Your task to perform on an android device: What's the weather today? Image 0: 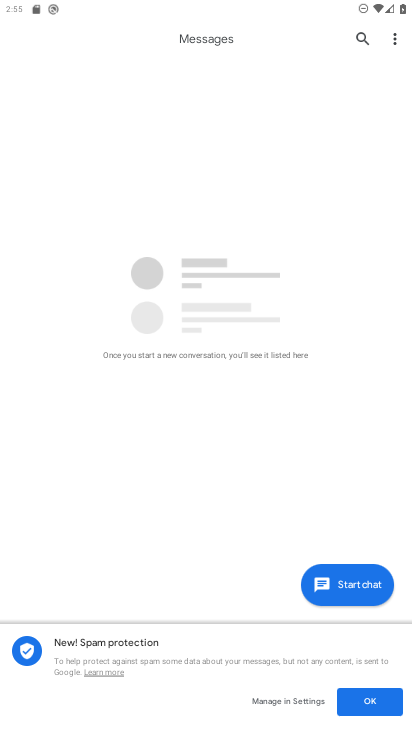
Step 0: press home button
Your task to perform on an android device: What's the weather today? Image 1: 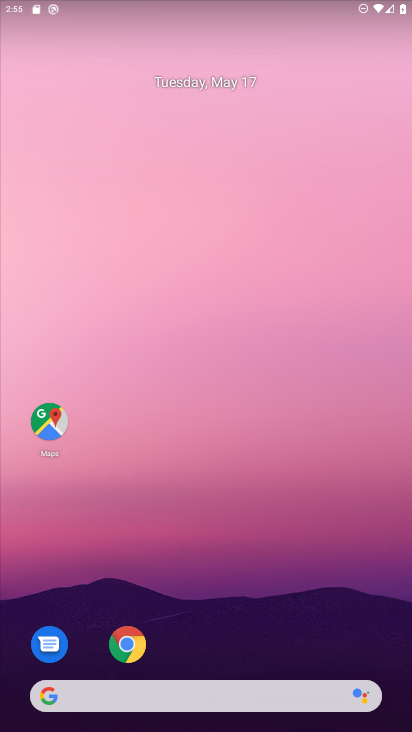
Step 1: drag from (230, 613) to (206, 189)
Your task to perform on an android device: What's the weather today? Image 2: 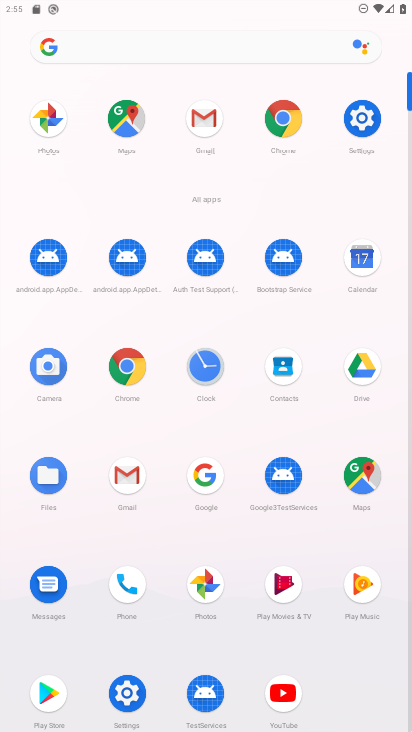
Step 2: click (287, 135)
Your task to perform on an android device: What's the weather today? Image 3: 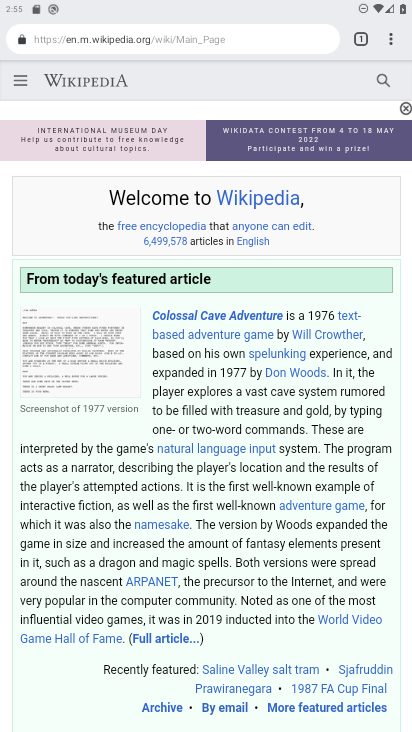
Step 3: drag from (199, 711) to (347, 724)
Your task to perform on an android device: What's the weather today? Image 4: 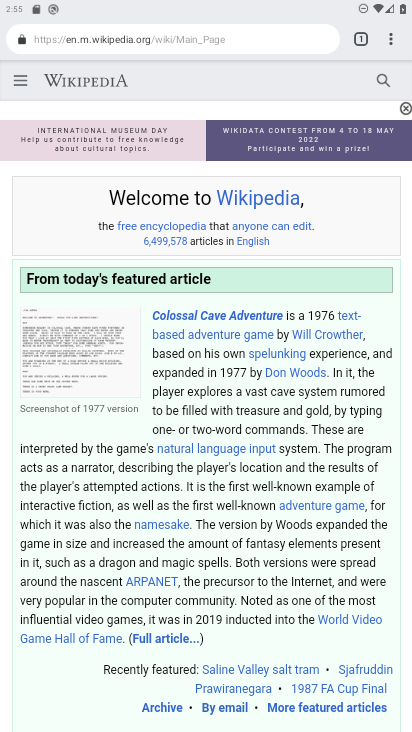
Step 4: click (148, 40)
Your task to perform on an android device: What's the weather today? Image 5: 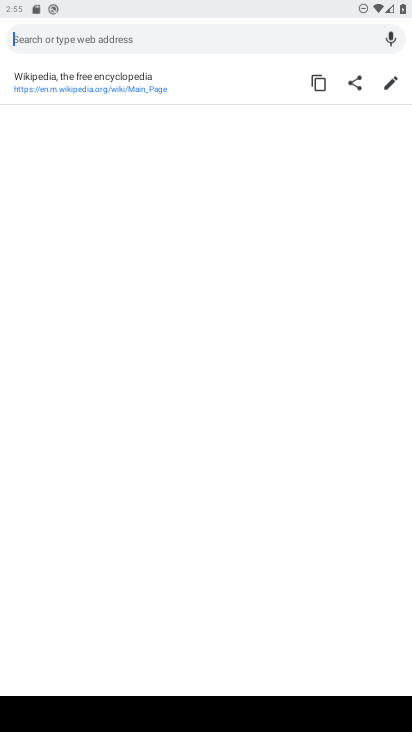
Step 5: type "What's the weather today?"
Your task to perform on an android device: What's the weather today? Image 6: 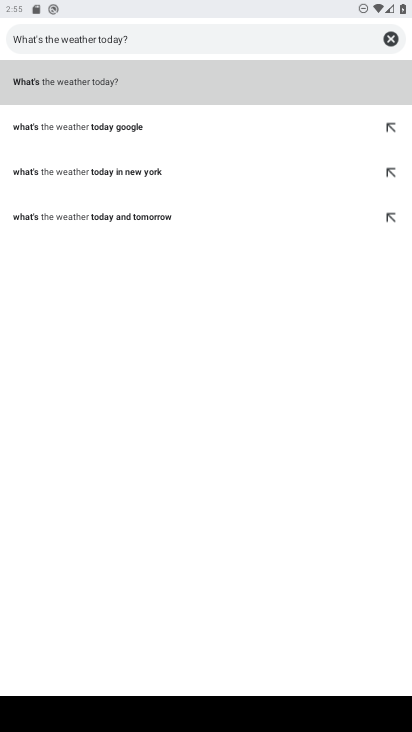
Step 6: click (217, 79)
Your task to perform on an android device: What's the weather today? Image 7: 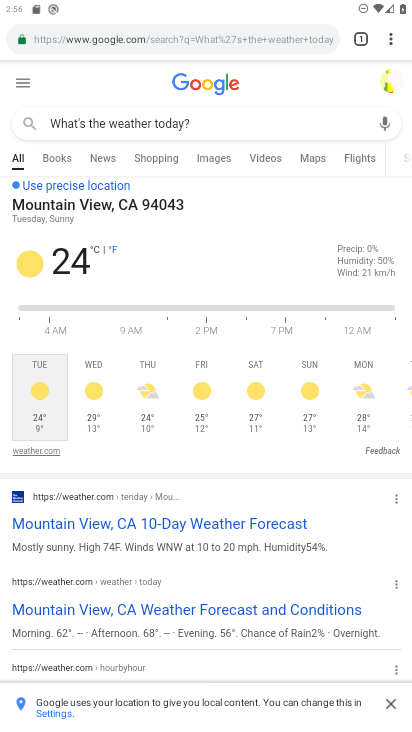
Step 7: task complete